Your task to perform on an android device: Open Google Image 0: 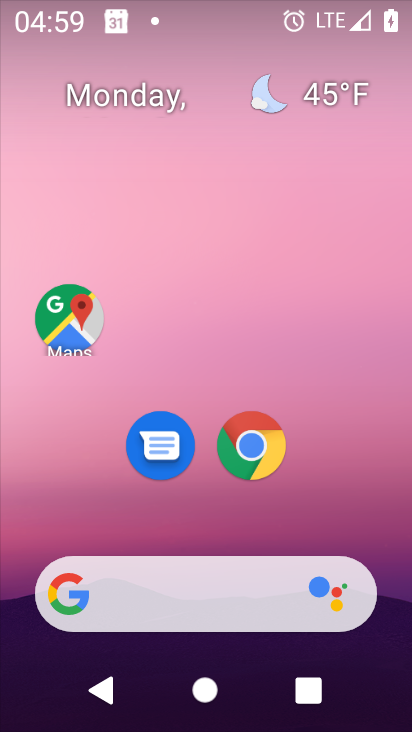
Step 0: drag from (233, 541) to (228, 131)
Your task to perform on an android device: Open Google Image 1: 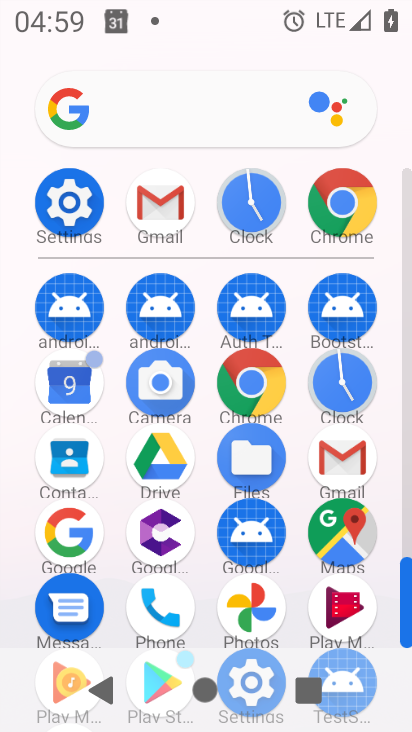
Step 1: click (77, 530)
Your task to perform on an android device: Open Google Image 2: 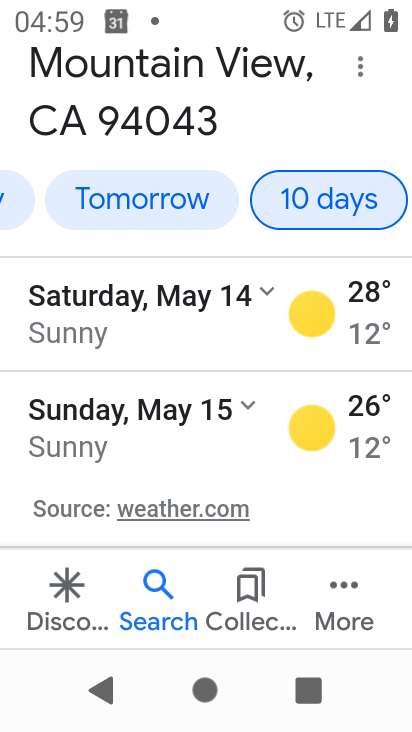
Step 2: task complete